Your task to perform on an android device: Show me productivity apps on the Play Store Image 0: 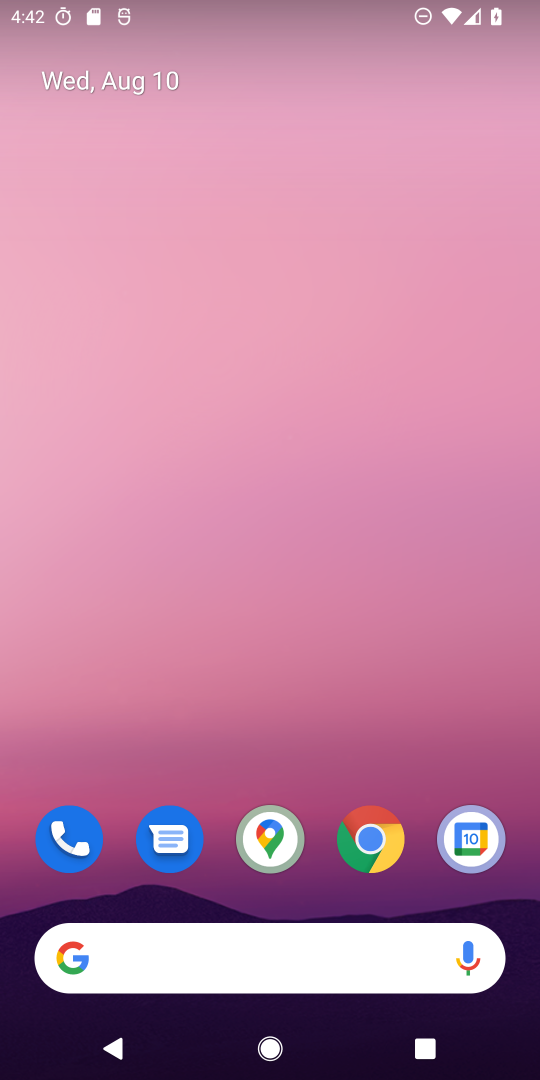
Step 0: drag from (51, 1017) to (295, 343)
Your task to perform on an android device: Show me productivity apps on the Play Store Image 1: 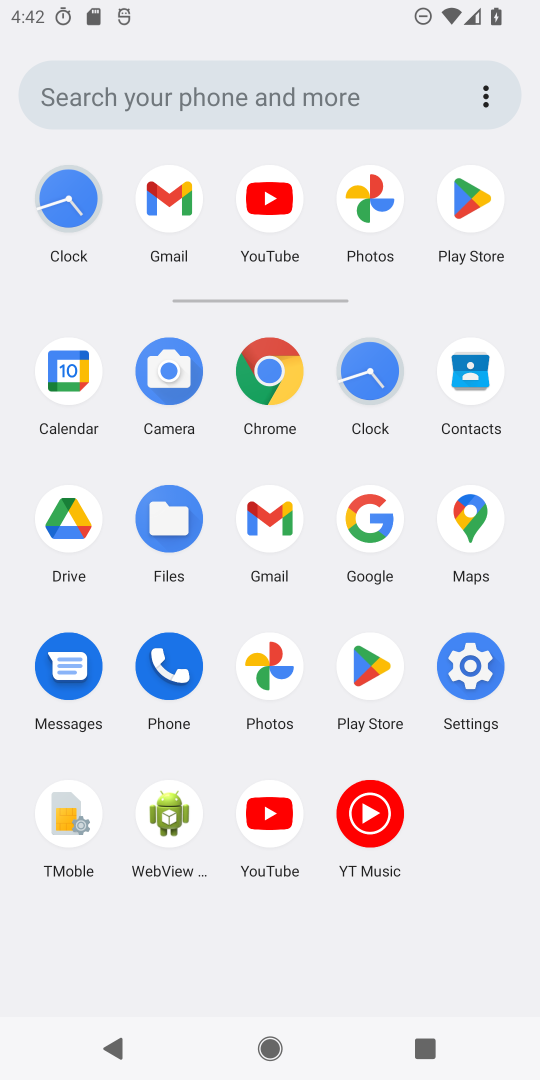
Step 1: click (381, 676)
Your task to perform on an android device: Show me productivity apps on the Play Store Image 2: 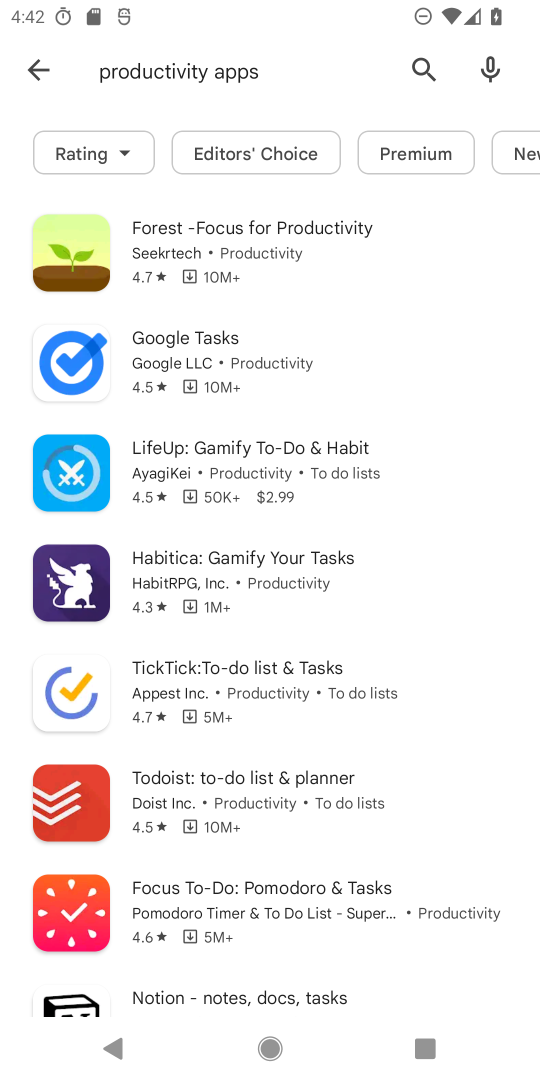
Step 2: task complete